Your task to perform on an android device: delete the emails in spam in the gmail app Image 0: 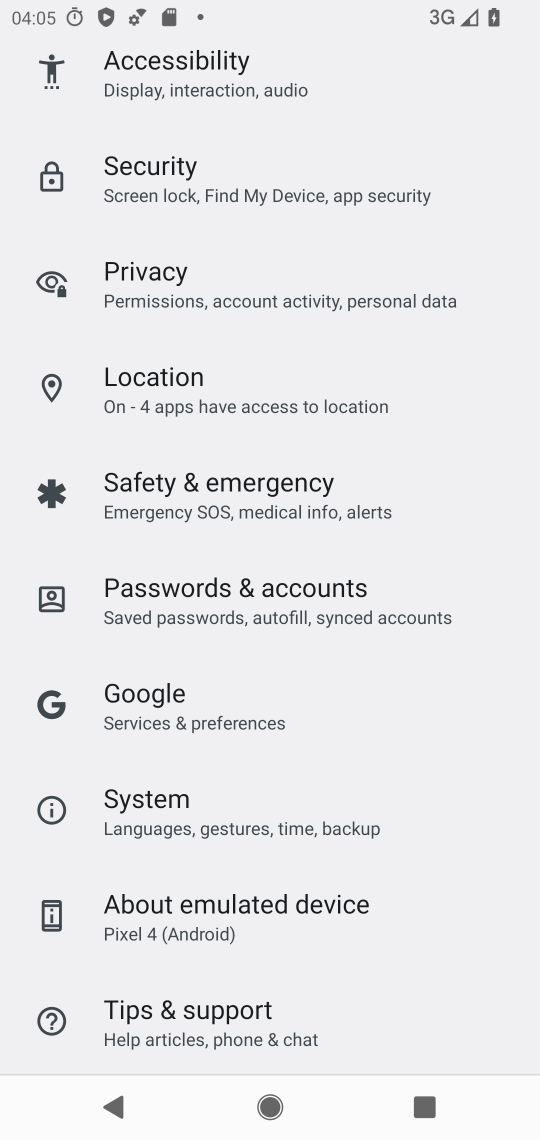
Step 0: press home button
Your task to perform on an android device: delete the emails in spam in the gmail app Image 1: 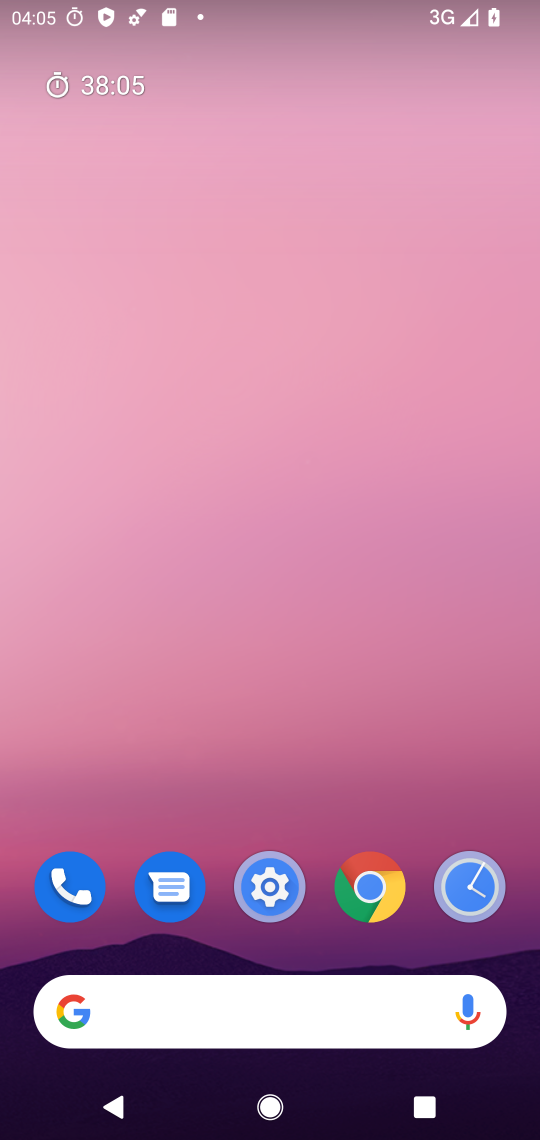
Step 1: drag from (397, 760) to (404, 335)
Your task to perform on an android device: delete the emails in spam in the gmail app Image 2: 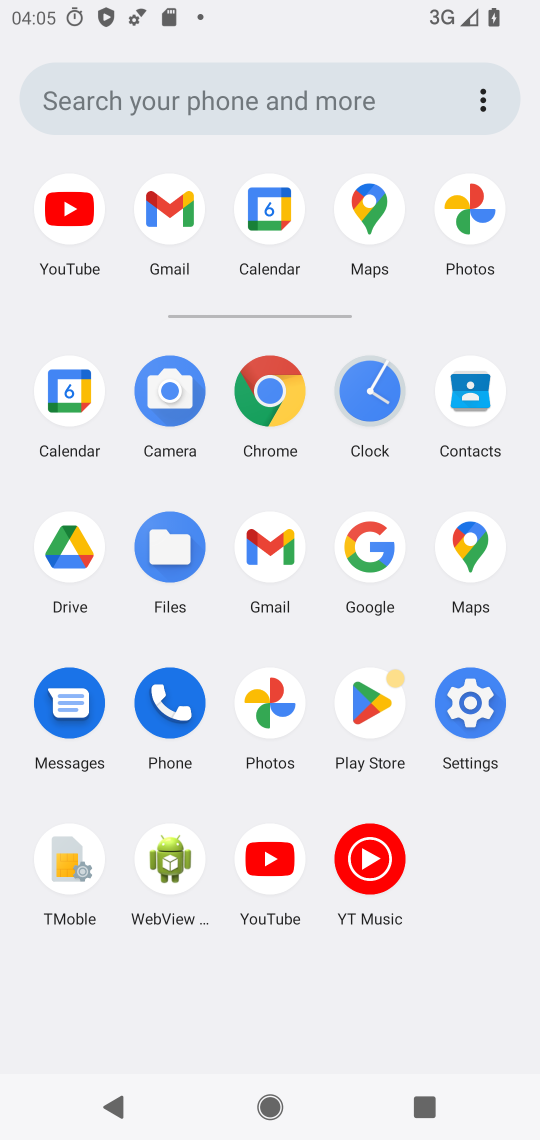
Step 2: click (262, 552)
Your task to perform on an android device: delete the emails in spam in the gmail app Image 3: 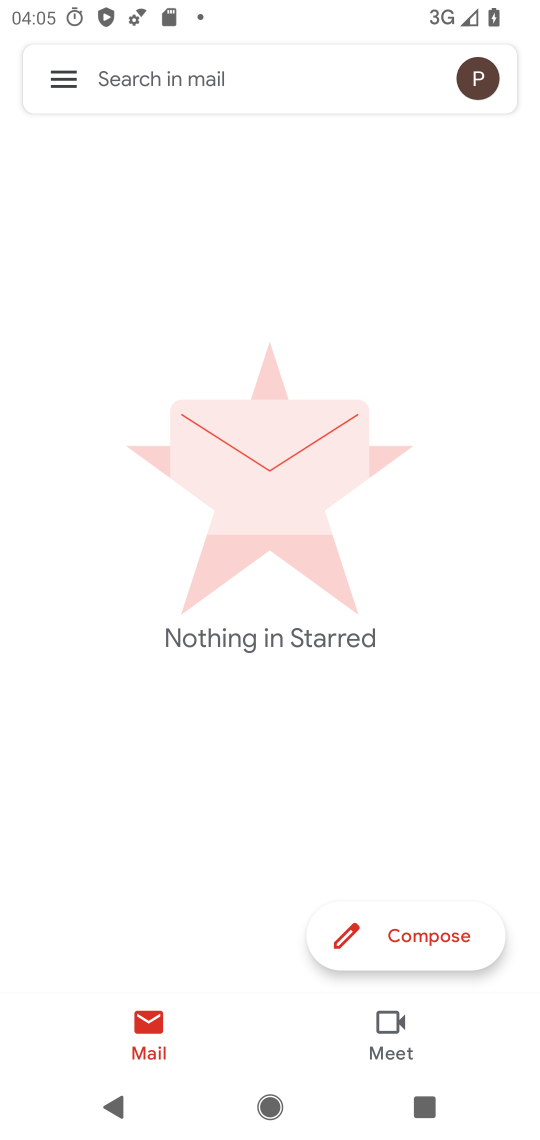
Step 3: click (64, 74)
Your task to perform on an android device: delete the emails in spam in the gmail app Image 4: 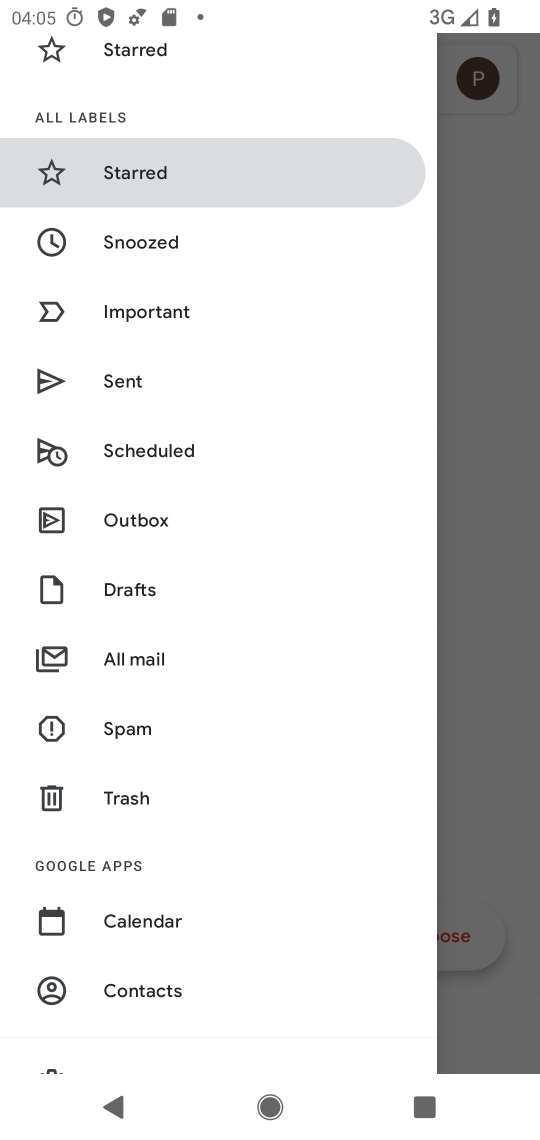
Step 4: drag from (273, 507) to (305, 358)
Your task to perform on an android device: delete the emails in spam in the gmail app Image 5: 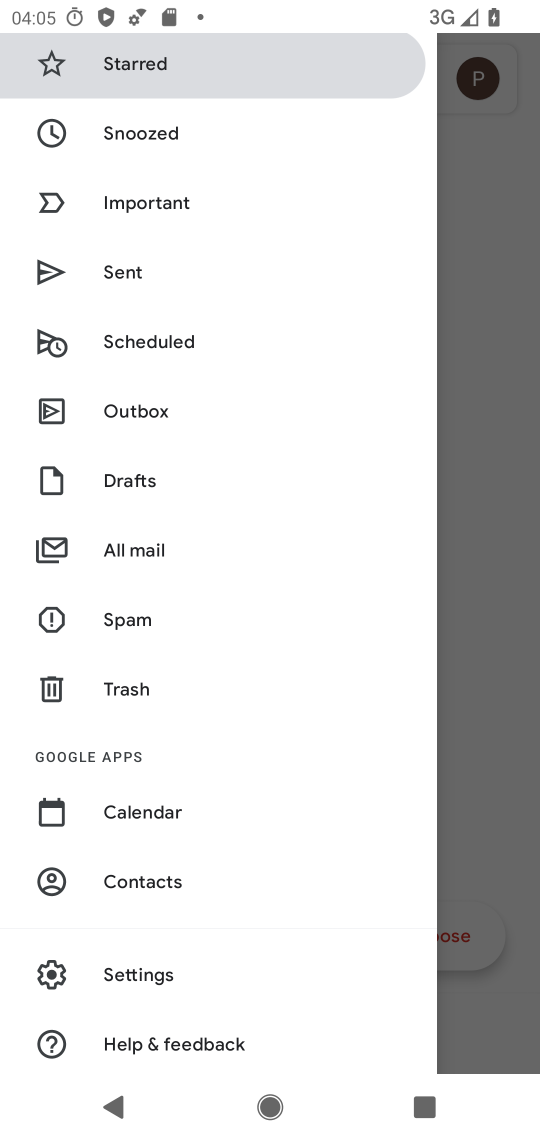
Step 5: drag from (295, 552) to (314, 374)
Your task to perform on an android device: delete the emails in spam in the gmail app Image 6: 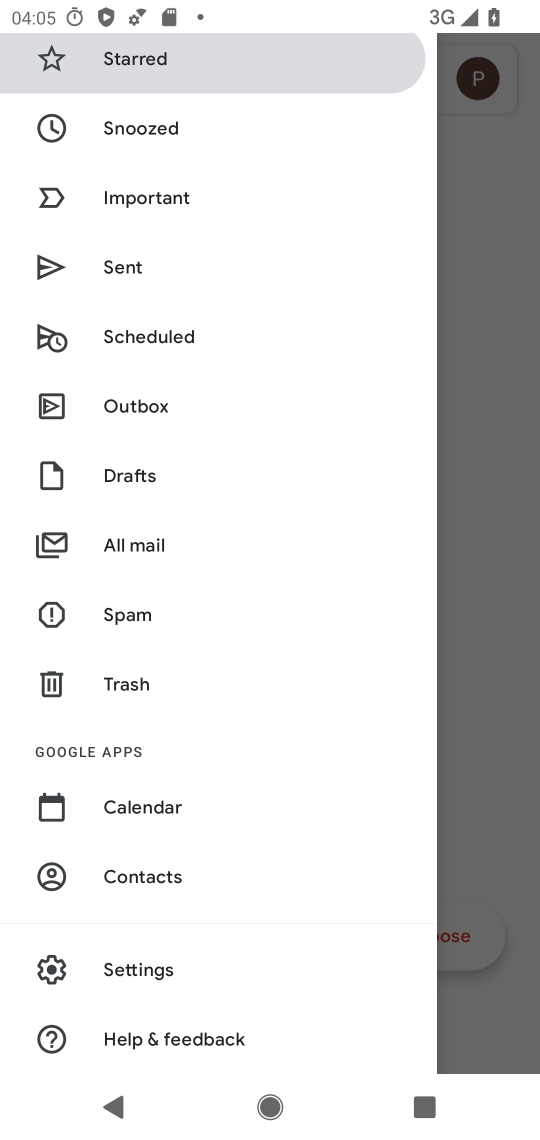
Step 6: click (217, 623)
Your task to perform on an android device: delete the emails in spam in the gmail app Image 7: 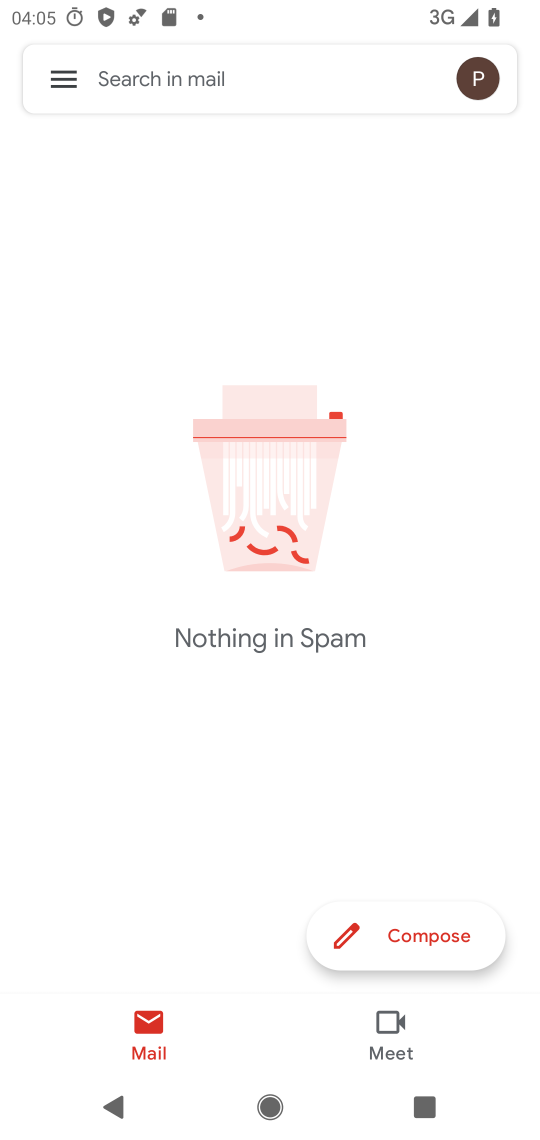
Step 7: task complete